Your task to perform on an android device: Open Chrome and go to the settings page Image 0: 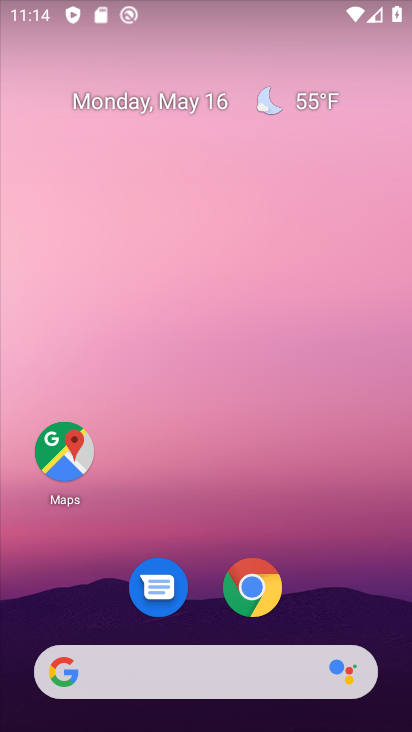
Step 0: drag from (209, 635) to (278, 41)
Your task to perform on an android device: Open Chrome and go to the settings page Image 1: 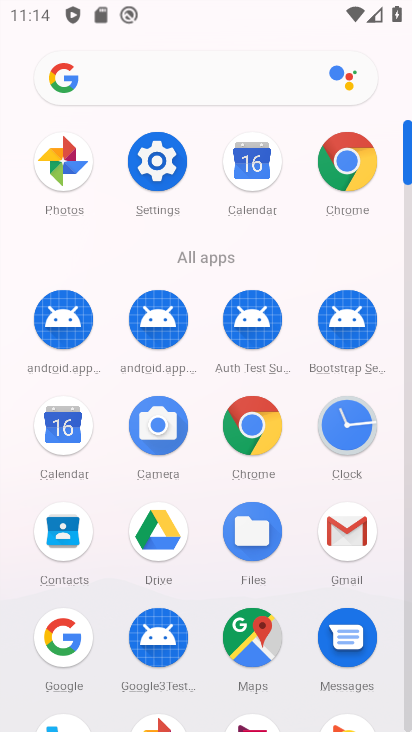
Step 1: click (350, 168)
Your task to perform on an android device: Open Chrome and go to the settings page Image 2: 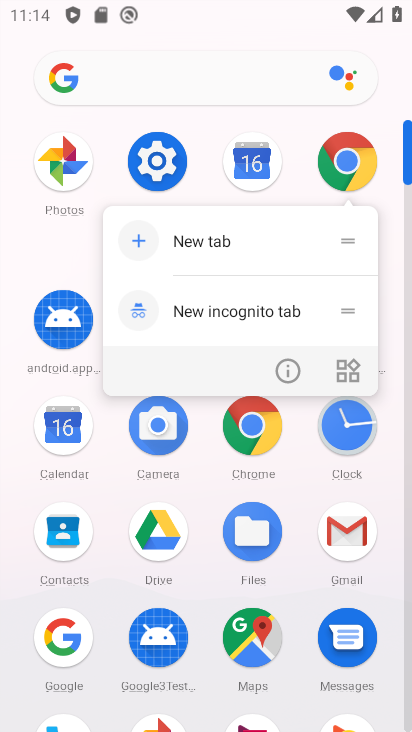
Step 2: click (288, 359)
Your task to perform on an android device: Open Chrome and go to the settings page Image 3: 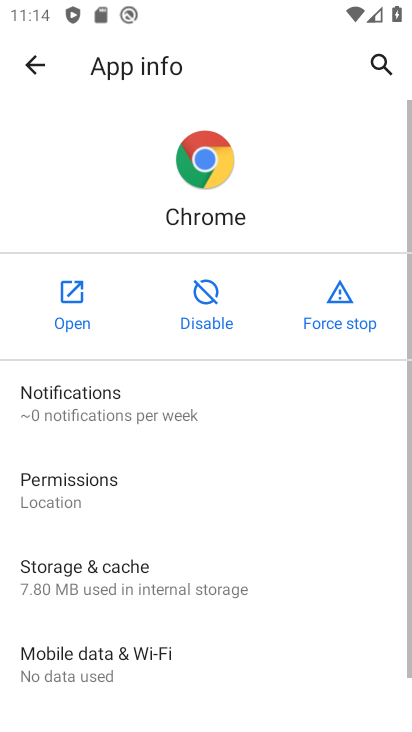
Step 3: click (80, 298)
Your task to perform on an android device: Open Chrome and go to the settings page Image 4: 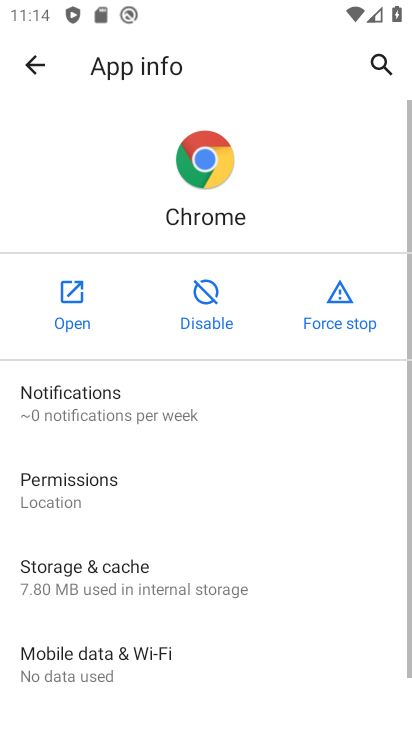
Step 4: click (80, 298)
Your task to perform on an android device: Open Chrome and go to the settings page Image 5: 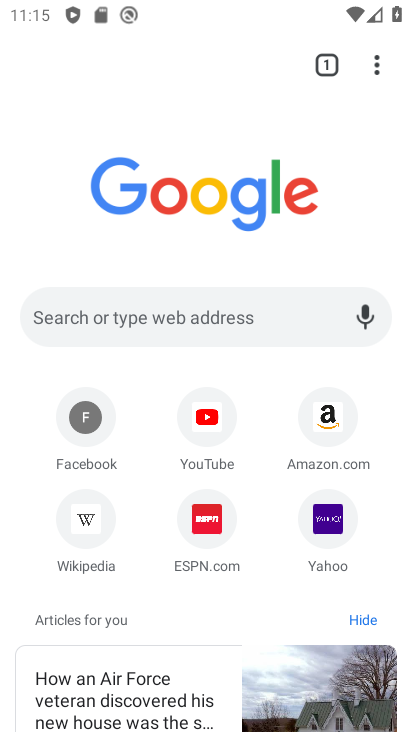
Step 5: click (380, 76)
Your task to perform on an android device: Open Chrome and go to the settings page Image 6: 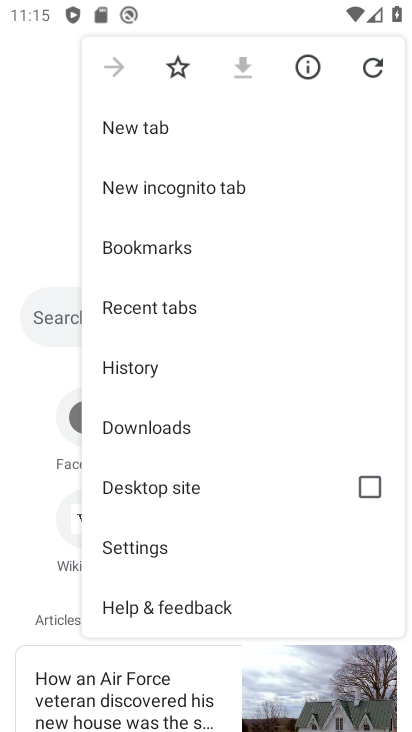
Step 6: drag from (225, 568) to (293, 145)
Your task to perform on an android device: Open Chrome and go to the settings page Image 7: 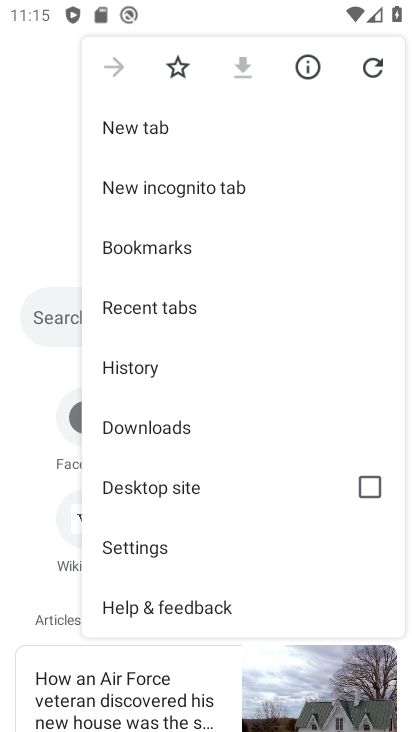
Step 7: click (158, 549)
Your task to perform on an android device: Open Chrome and go to the settings page Image 8: 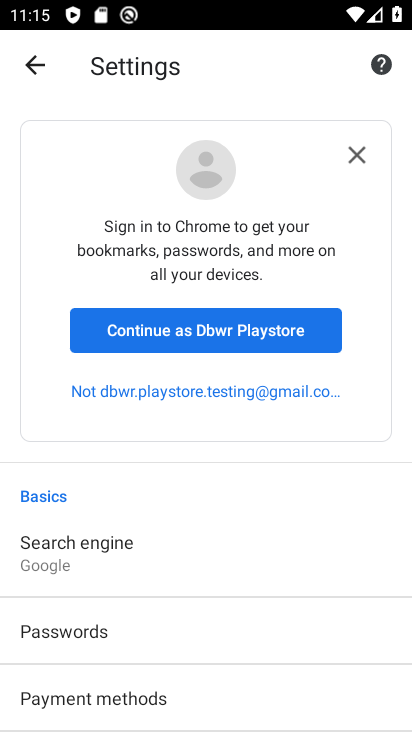
Step 8: task complete